Your task to perform on an android device: toggle location history Image 0: 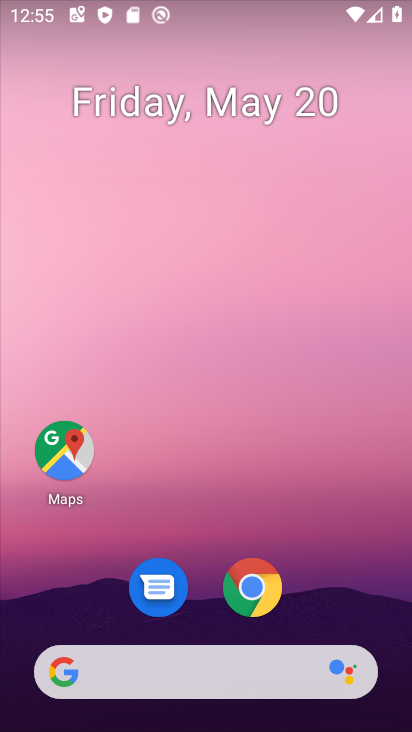
Step 0: drag from (343, 568) to (188, 124)
Your task to perform on an android device: toggle location history Image 1: 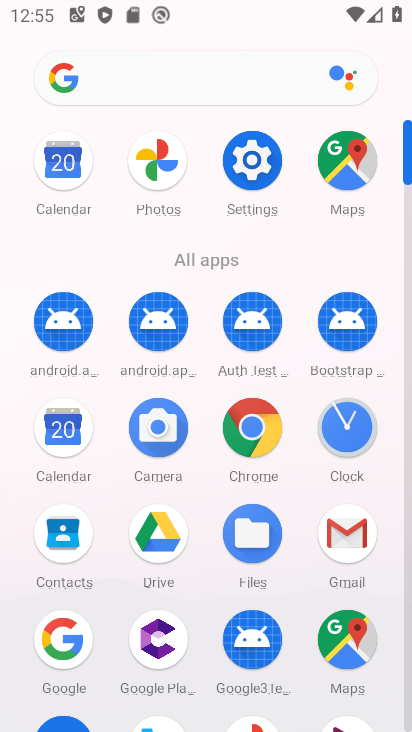
Step 1: click (345, 158)
Your task to perform on an android device: toggle location history Image 2: 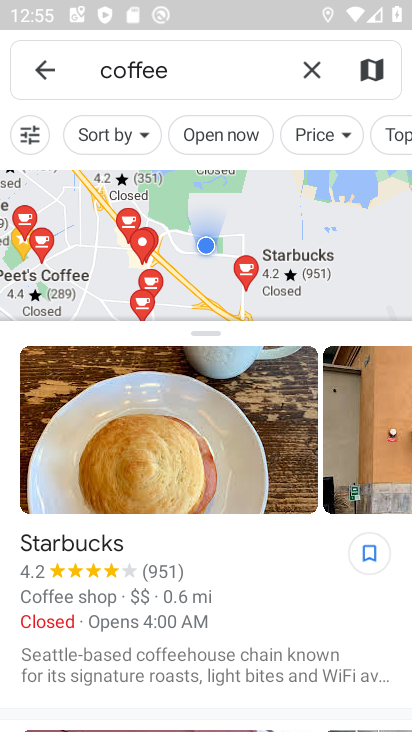
Step 2: click (42, 64)
Your task to perform on an android device: toggle location history Image 3: 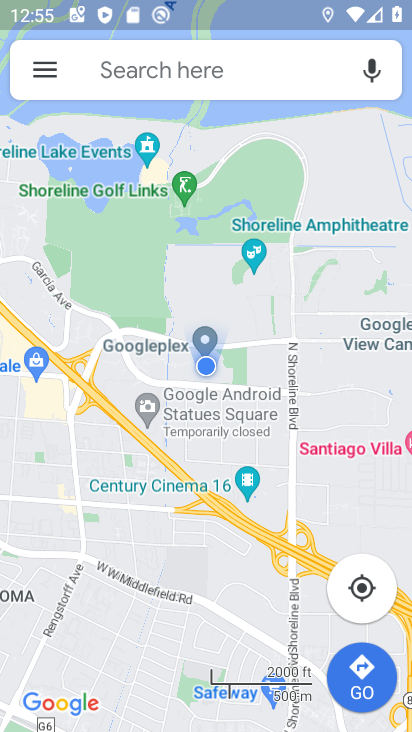
Step 3: click (48, 72)
Your task to perform on an android device: toggle location history Image 4: 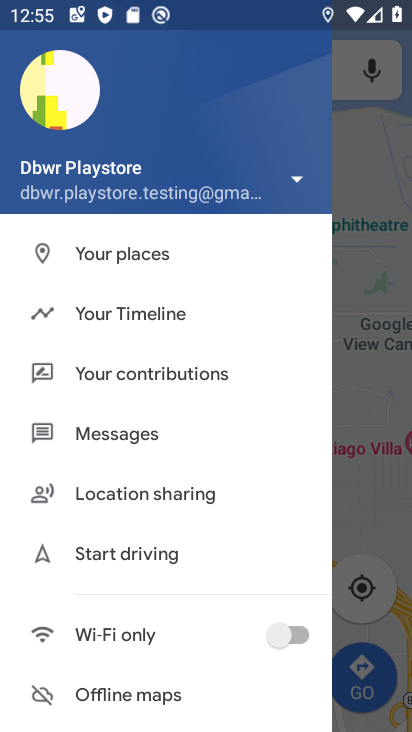
Step 4: click (152, 307)
Your task to perform on an android device: toggle location history Image 5: 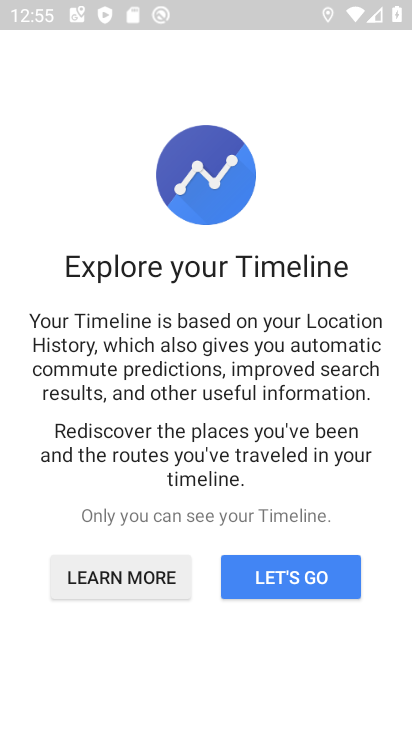
Step 5: click (278, 583)
Your task to perform on an android device: toggle location history Image 6: 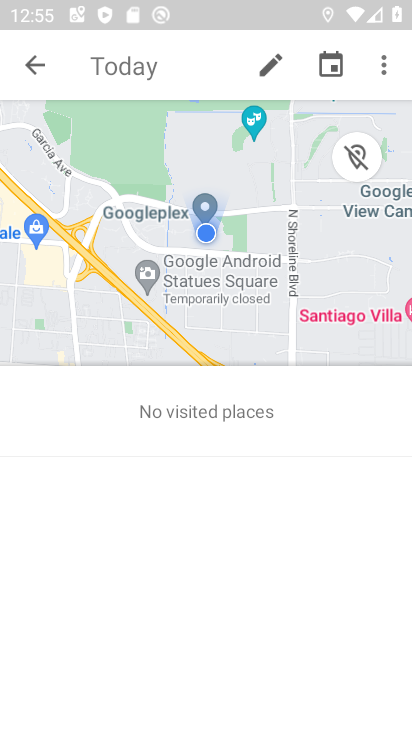
Step 6: click (387, 63)
Your task to perform on an android device: toggle location history Image 7: 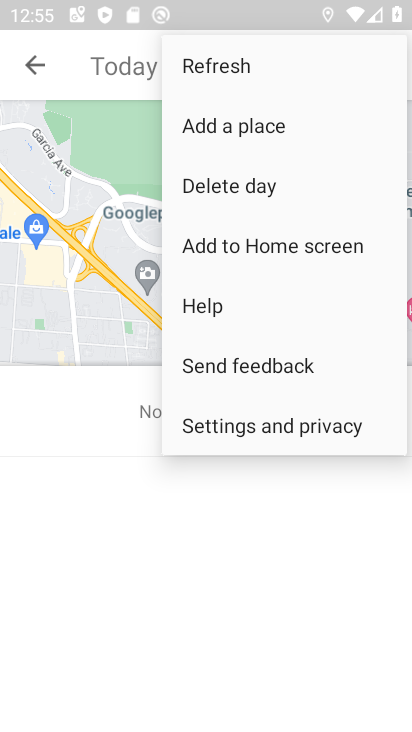
Step 7: click (283, 424)
Your task to perform on an android device: toggle location history Image 8: 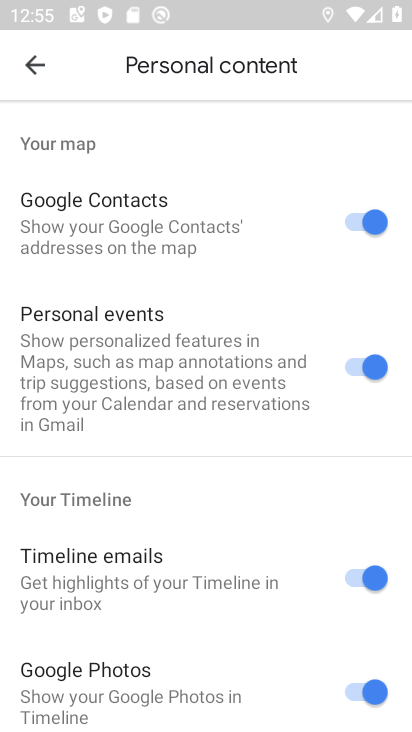
Step 8: drag from (220, 472) to (154, 183)
Your task to perform on an android device: toggle location history Image 9: 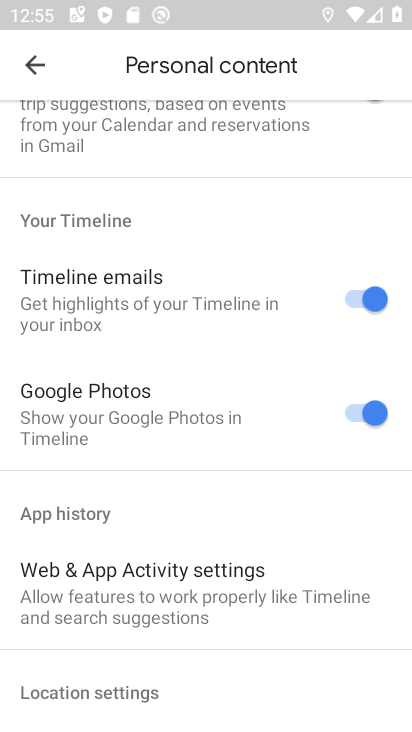
Step 9: drag from (185, 456) to (162, 51)
Your task to perform on an android device: toggle location history Image 10: 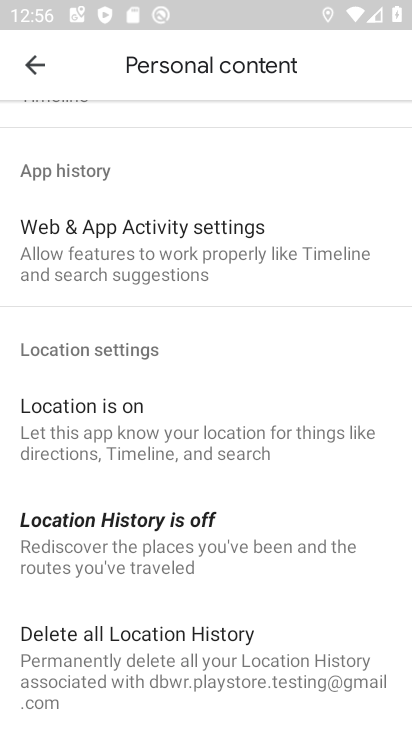
Step 10: click (110, 522)
Your task to perform on an android device: toggle location history Image 11: 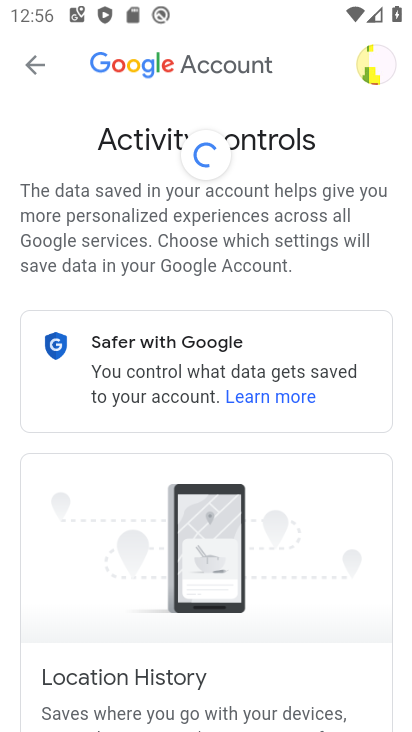
Step 11: drag from (327, 493) to (291, 118)
Your task to perform on an android device: toggle location history Image 12: 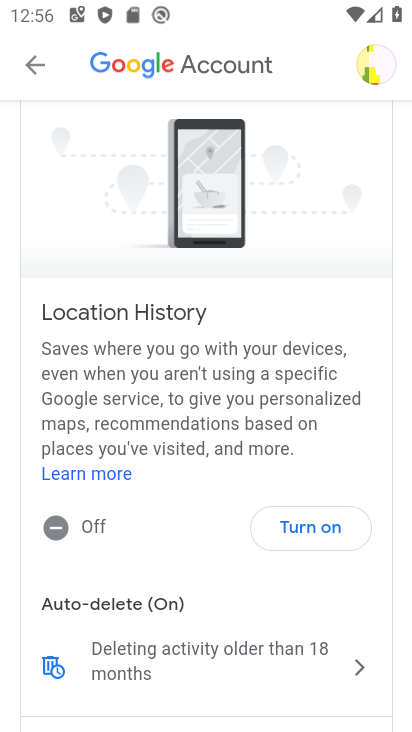
Step 12: click (303, 526)
Your task to perform on an android device: toggle location history Image 13: 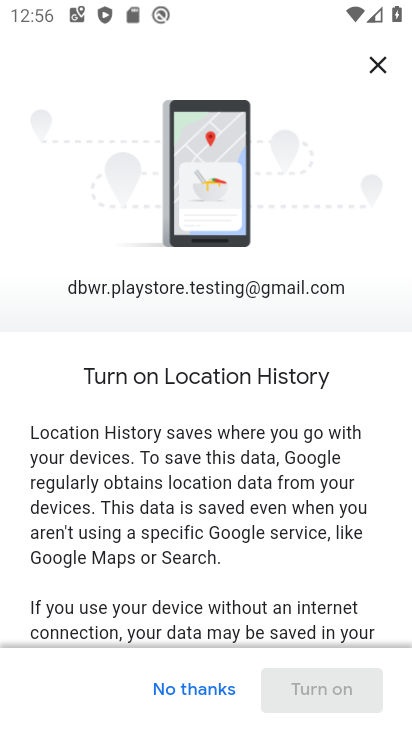
Step 13: drag from (300, 556) to (250, 148)
Your task to perform on an android device: toggle location history Image 14: 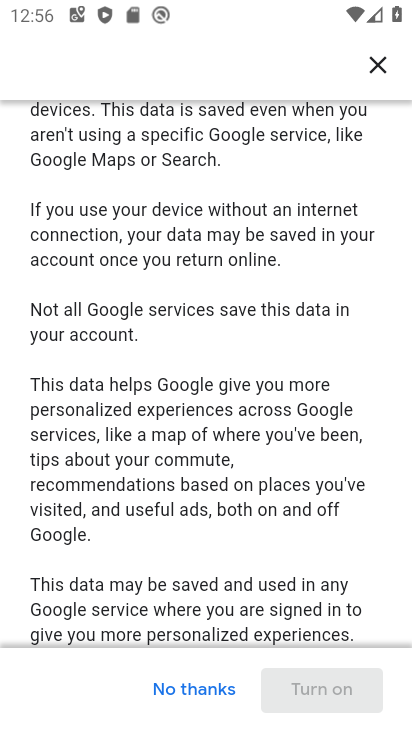
Step 14: drag from (276, 467) to (276, 185)
Your task to perform on an android device: toggle location history Image 15: 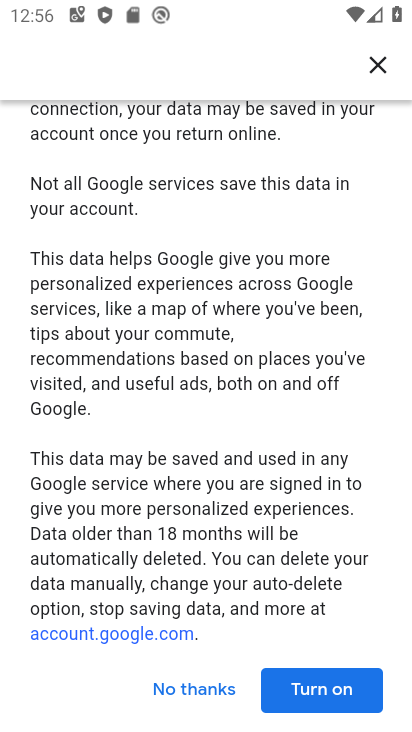
Step 15: click (315, 695)
Your task to perform on an android device: toggle location history Image 16: 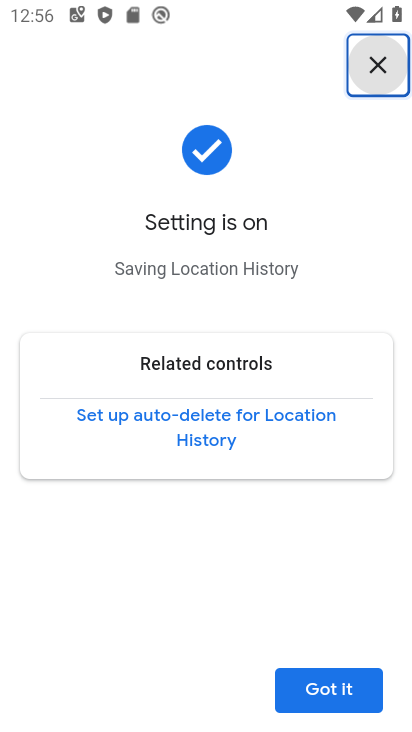
Step 16: click (322, 684)
Your task to perform on an android device: toggle location history Image 17: 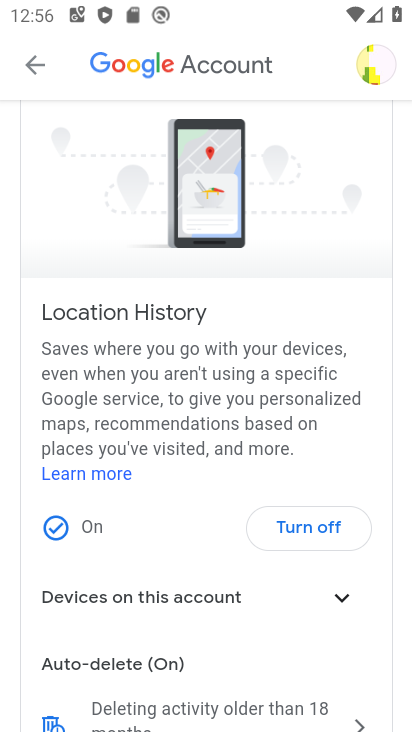
Step 17: task complete